Your task to perform on an android device: open app "Move to iOS" (install if not already installed) Image 0: 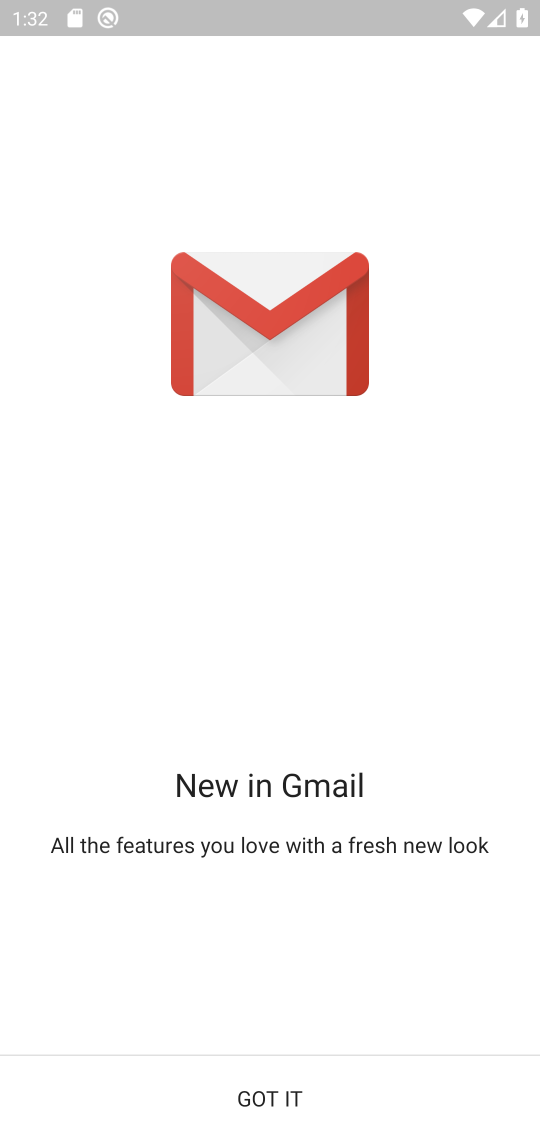
Step 0: press home button
Your task to perform on an android device: open app "Move to iOS" (install if not already installed) Image 1: 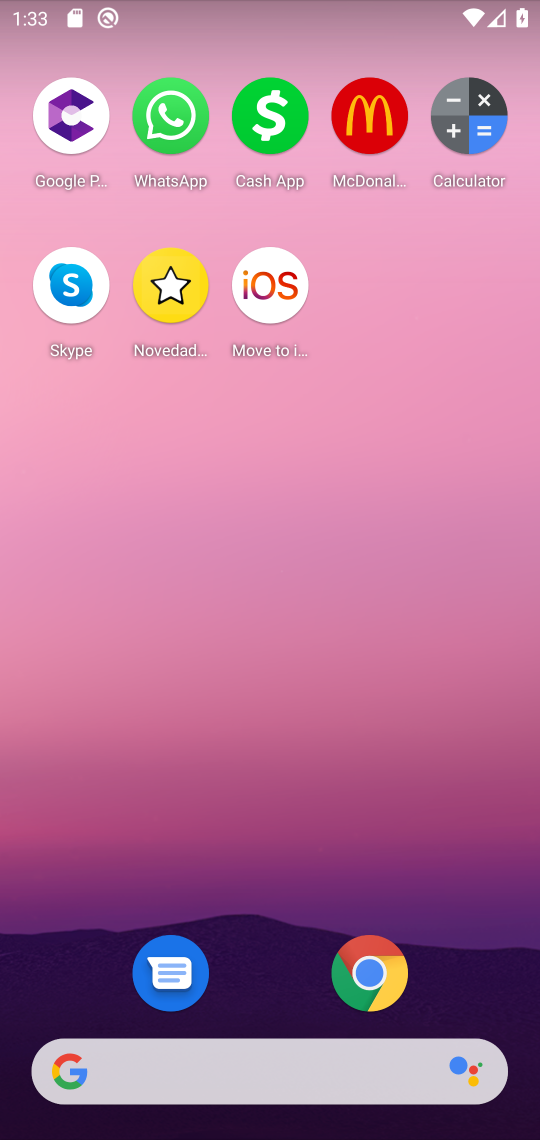
Step 1: click (264, 355)
Your task to perform on an android device: open app "Move to iOS" (install if not already installed) Image 2: 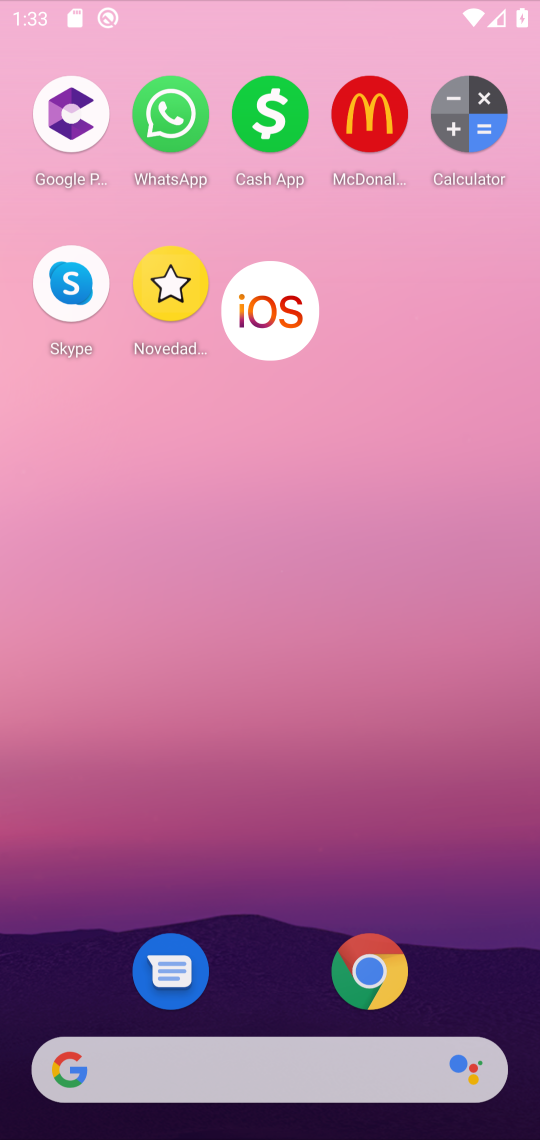
Step 2: task complete